Your task to perform on an android device: delete the emails in spam in the gmail app Image 0: 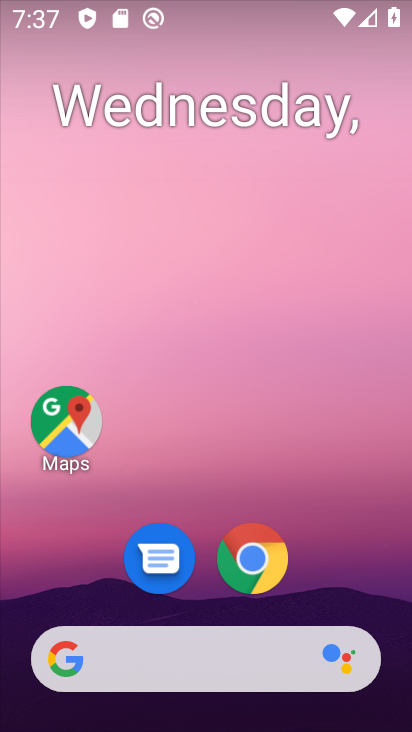
Step 0: press home button
Your task to perform on an android device: delete the emails in spam in the gmail app Image 1: 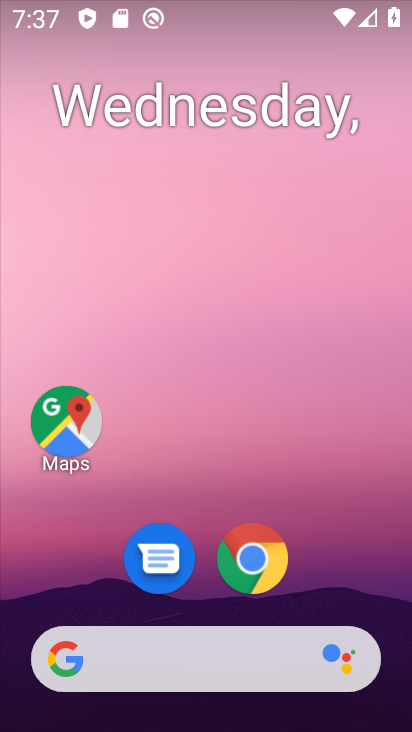
Step 1: drag from (199, 423) to (218, 75)
Your task to perform on an android device: delete the emails in spam in the gmail app Image 2: 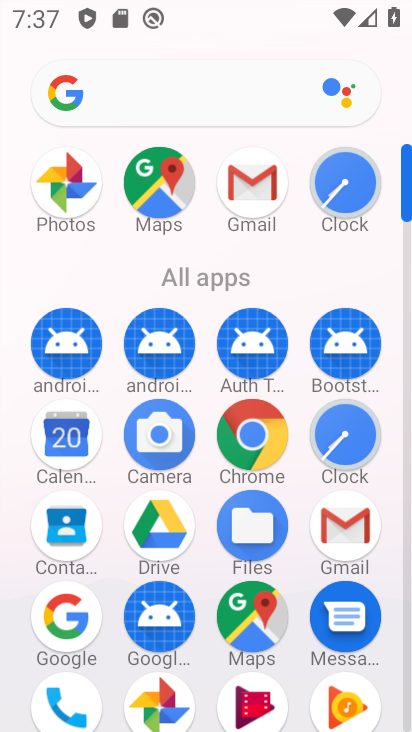
Step 2: click (340, 516)
Your task to perform on an android device: delete the emails in spam in the gmail app Image 3: 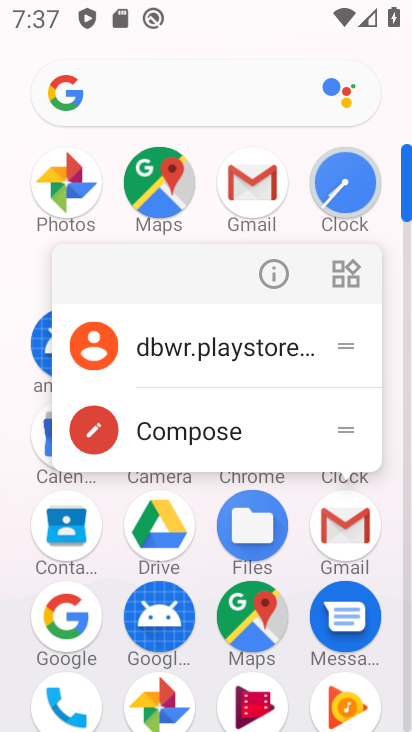
Step 3: click (340, 516)
Your task to perform on an android device: delete the emails in spam in the gmail app Image 4: 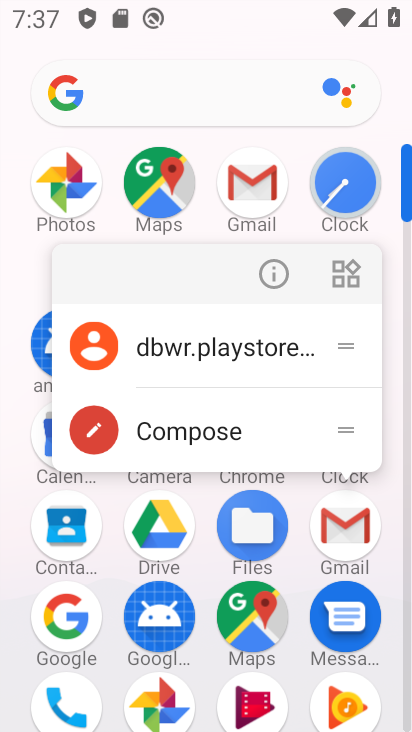
Step 4: click (340, 516)
Your task to perform on an android device: delete the emails in spam in the gmail app Image 5: 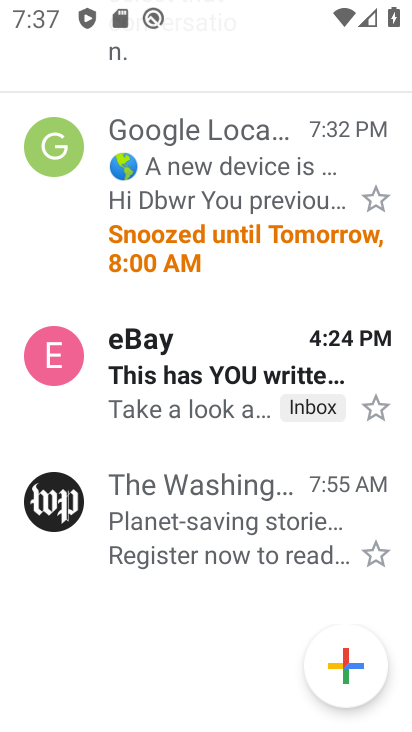
Step 5: drag from (196, 238) to (201, 648)
Your task to perform on an android device: delete the emails in spam in the gmail app Image 6: 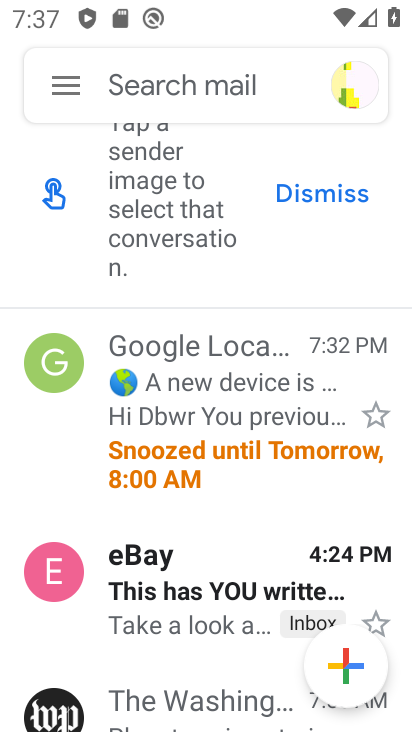
Step 6: click (53, 77)
Your task to perform on an android device: delete the emails in spam in the gmail app Image 7: 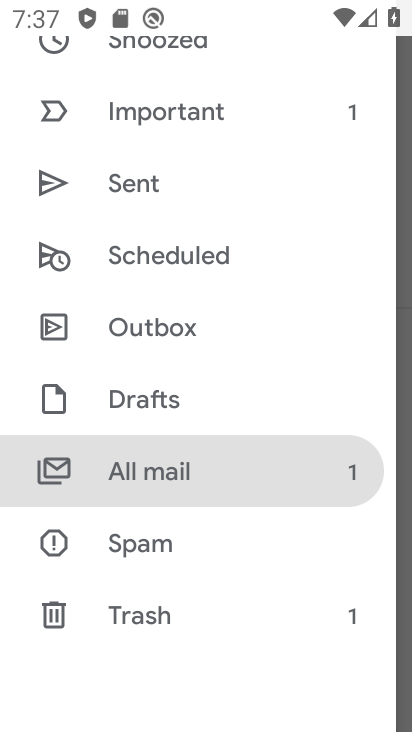
Step 7: click (139, 550)
Your task to perform on an android device: delete the emails in spam in the gmail app Image 8: 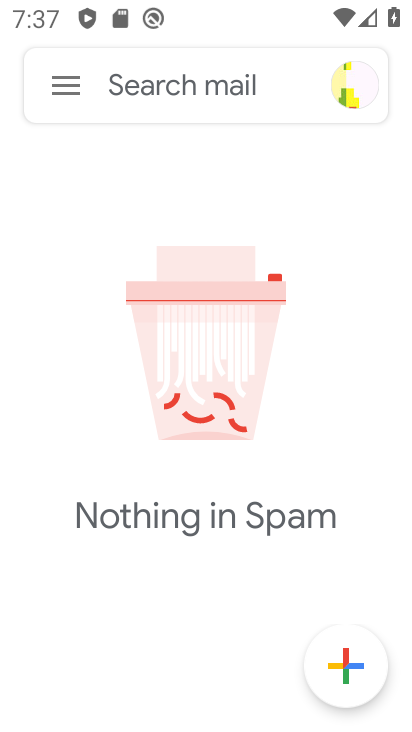
Step 8: task complete